Your task to perform on an android device: Do I have any events this weekend? Image 0: 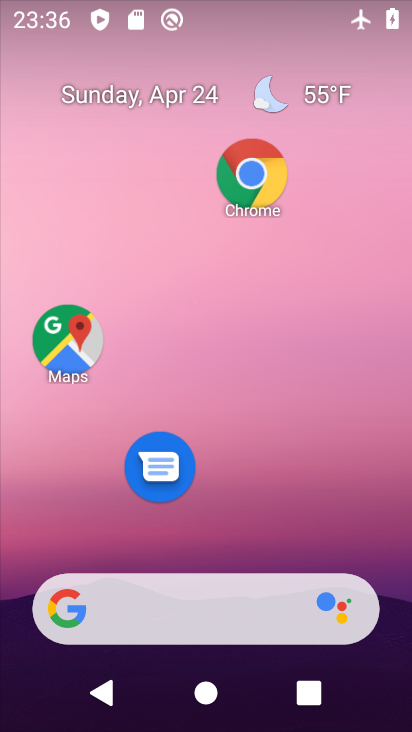
Step 0: drag from (246, 521) to (256, 59)
Your task to perform on an android device: Do I have any events this weekend? Image 1: 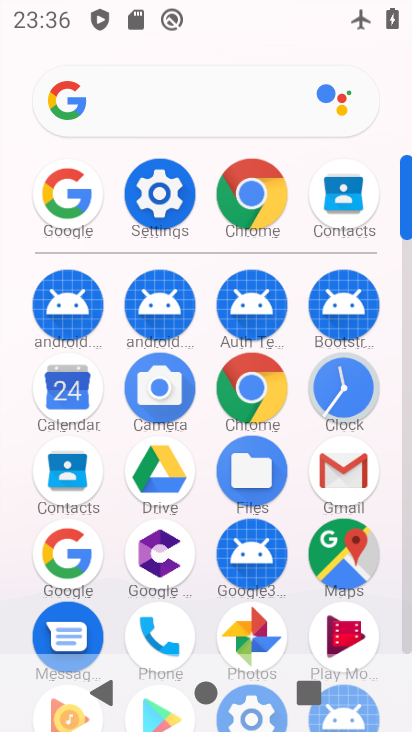
Step 1: click (68, 395)
Your task to perform on an android device: Do I have any events this weekend? Image 2: 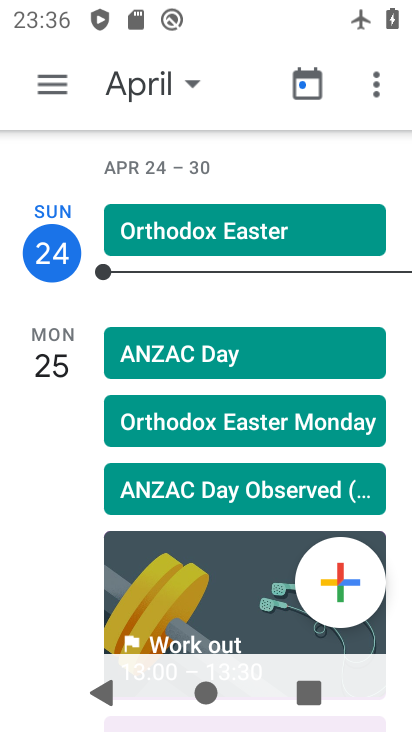
Step 2: click (182, 91)
Your task to perform on an android device: Do I have any events this weekend? Image 3: 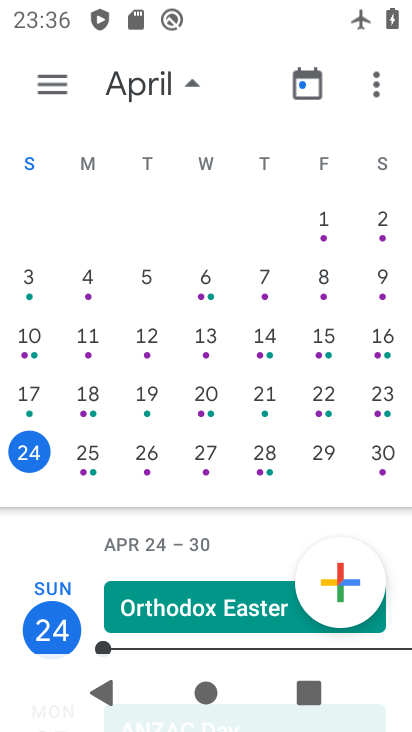
Step 3: drag from (348, 472) to (9, 446)
Your task to perform on an android device: Do I have any events this weekend? Image 4: 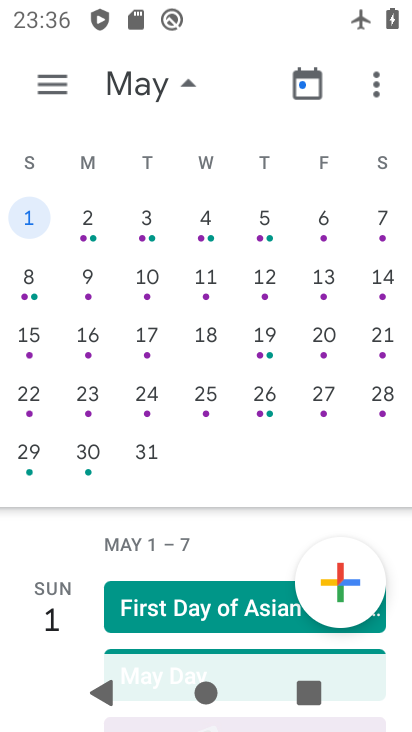
Step 4: drag from (49, 483) to (389, 495)
Your task to perform on an android device: Do I have any events this weekend? Image 5: 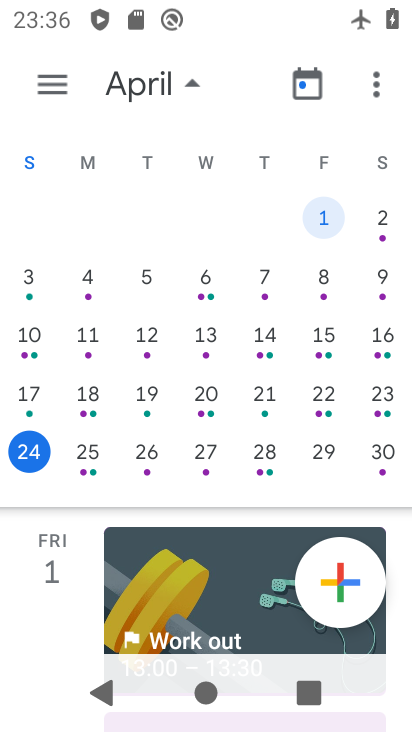
Step 5: click (214, 454)
Your task to perform on an android device: Do I have any events this weekend? Image 6: 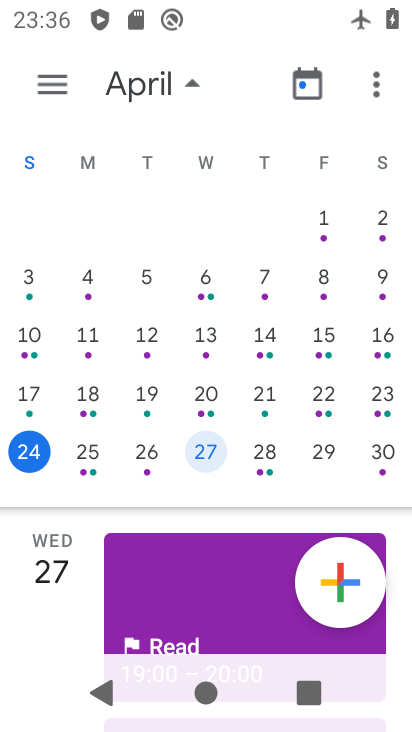
Step 6: task complete